Your task to perform on an android device: Open Google Chrome and click the shortcut for Amazon.com Image 0: 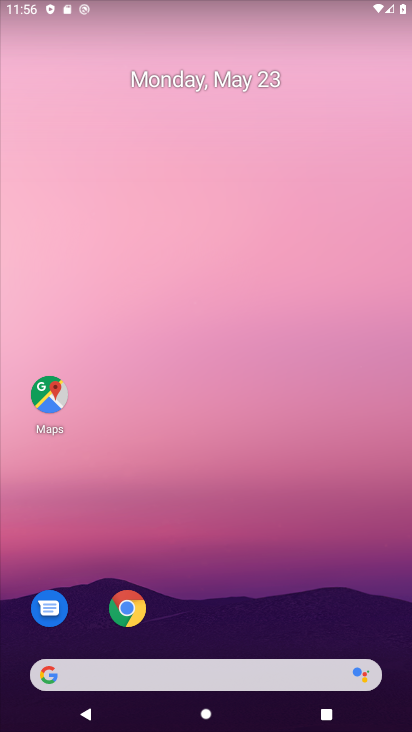
Step 0: press home button
Your task to perform on an android device: Open Google Chrome and click the shortcut for Amazon.com Image 1: 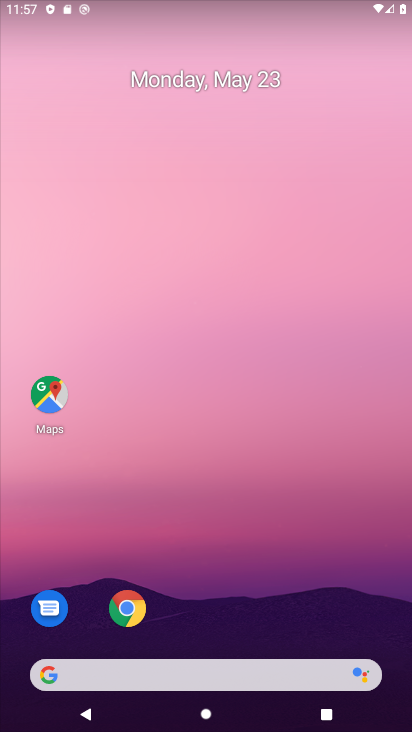
Step 1: drag from (266, 687) to (231, 171)
Your task to perform on an android device: Open Google Chrome and click the shortcut for Amazon.com Image 2: 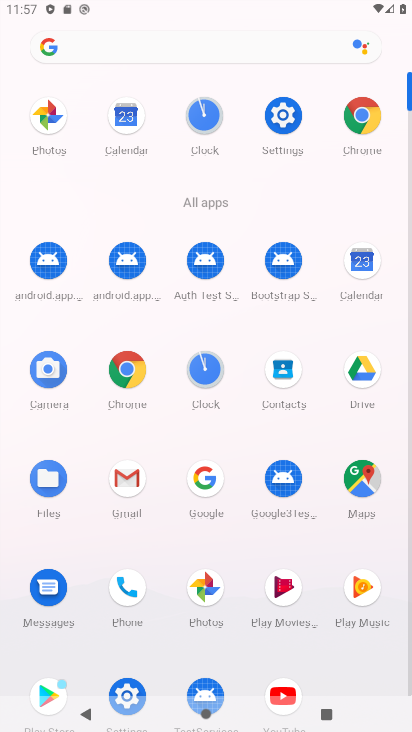
Step 2: click (127, 376)
Your task to perform on an android device: Open Google Chrome and click the shortcut for Amazon.com Image 3: 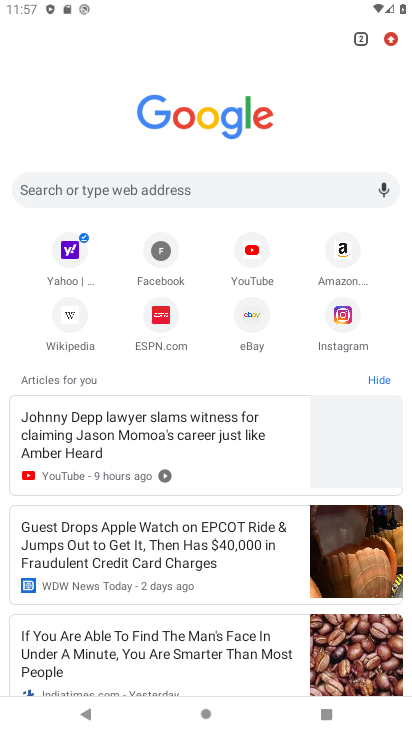
Step 3: click (327, 259)
Your task to perform on an android device: Open Google Chrome and click the shortcut for Amazon.com Image 4: 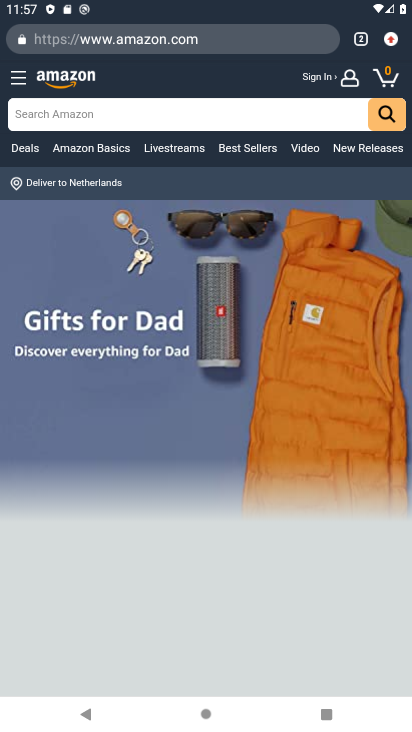
Step 4: task complete